Your task to perform on an android device: When is my next meeting? Image 0: 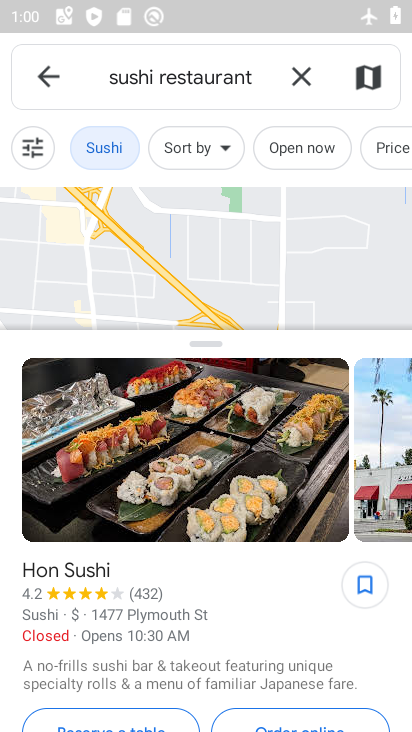
Step 0: drag from (251, 626) to (313, 357)
Your task to perform on an android device: When is my next meeting? Image 1: 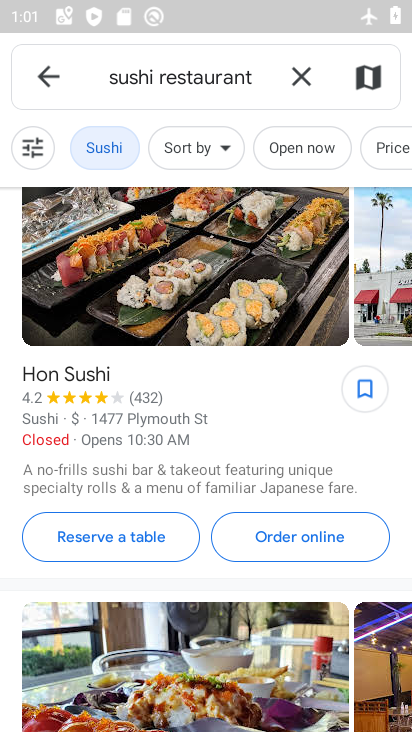
Step 1: press home button
Your task to perform on an android device: When is my next meeting? Image 2: 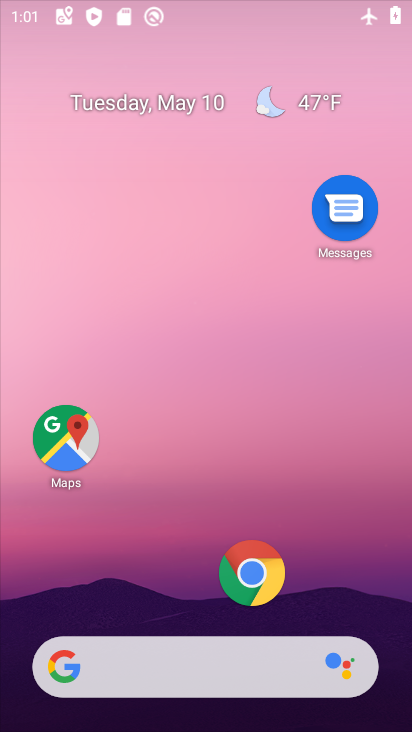
Step 2: drag from (189, 650) to (241, 256)
Your task to perform on an android device: When is my next meeting? Image 3: 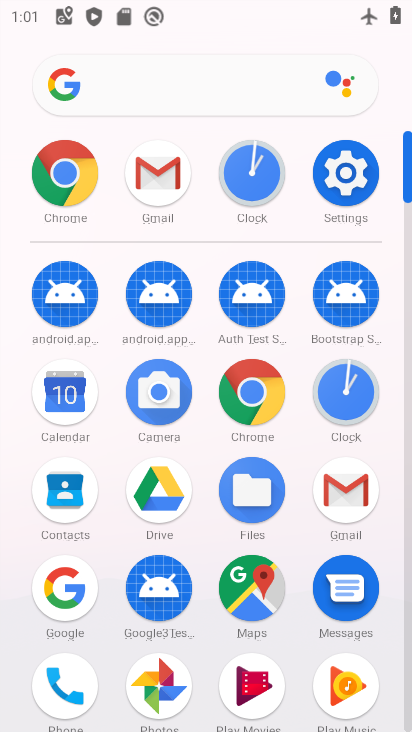
Step 3: click (58, 388)
Your task to perform on an android device: When is my next meeting? Image 4: 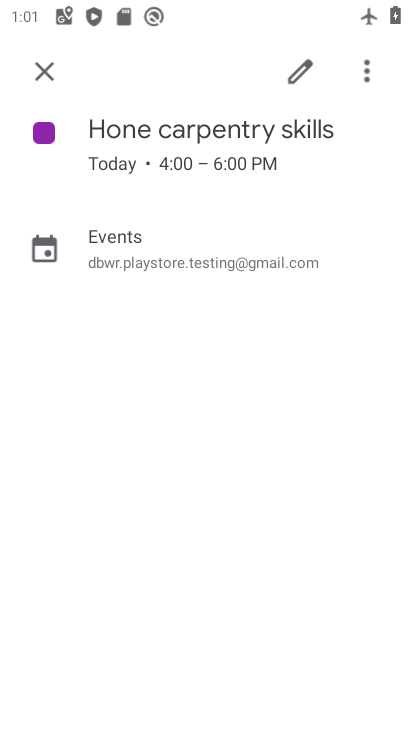
Step 4: click (44, 82)
Your task to perform on an android device: When is my next meeting? Image 5: 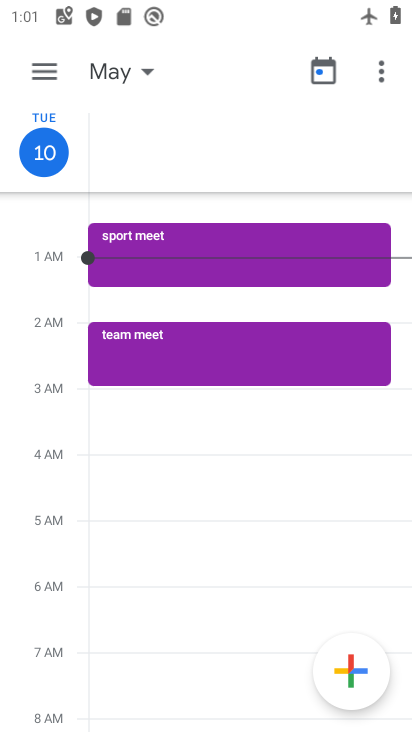
Step 5: click (116, 52)
Your task to perform on an android device: When is my next meeting? Image 6: 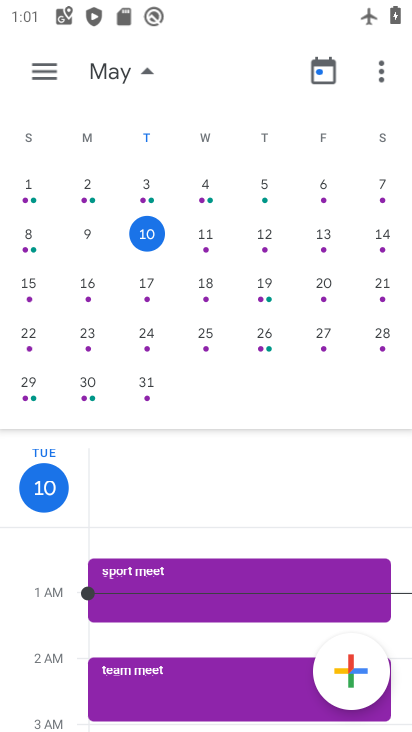
Step 6: click (142, 233)
Your task to perform on an android device: When is my next meeting? Image 7: 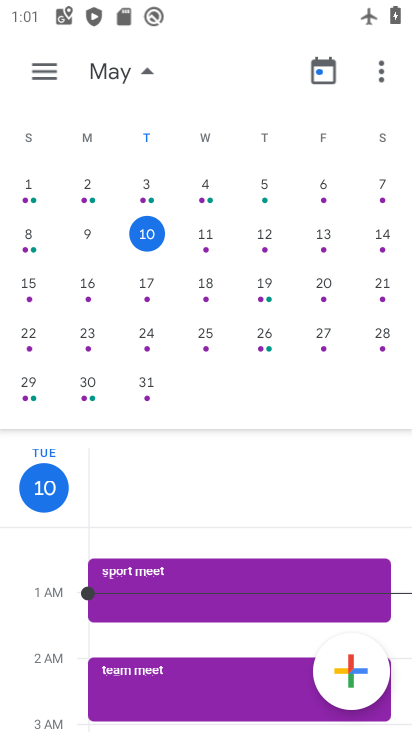
Step 7: task complete